Your task to perform on an android device: delete location history Image 0: 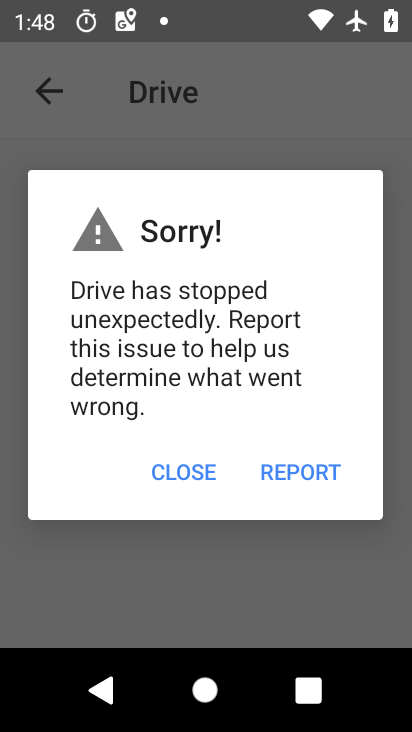
Step 0: press home button
Your task to perform on an android device: delete location history Image 1: 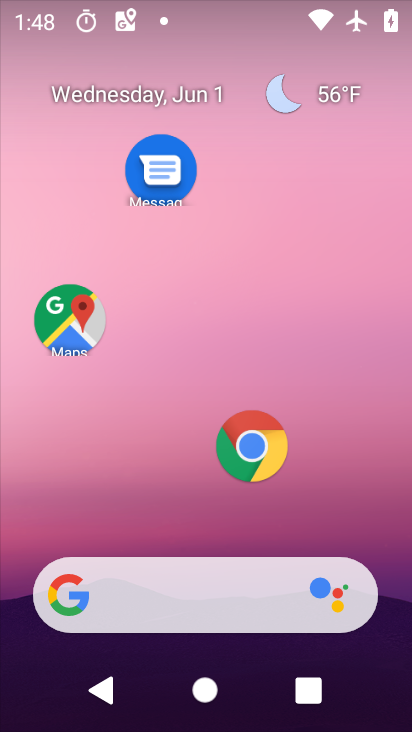
Step 1: drag from (197, 528) to (255, 133)
Your task to perform on an android device: delete location history Image 2: 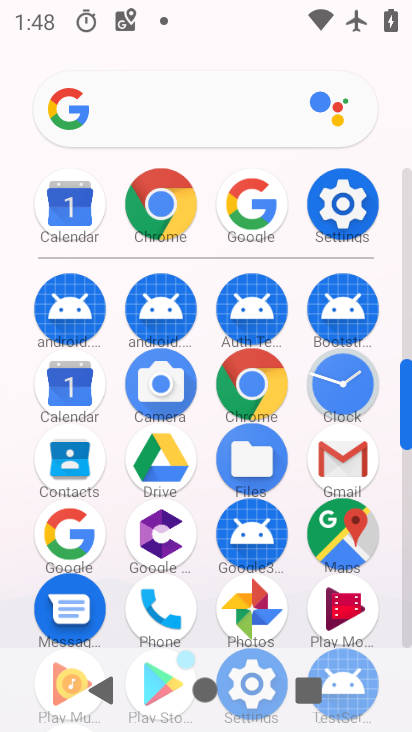
Step 2: drag from (203, 279) to (221, 86)
Your task to perform on an android device: delete location history Image 3: 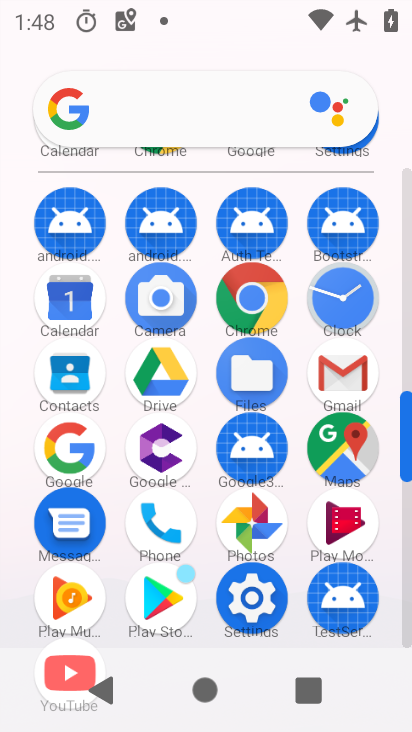
Step 3: click (252, 609)
Your task to perform on an android device: delete location history Image 4: 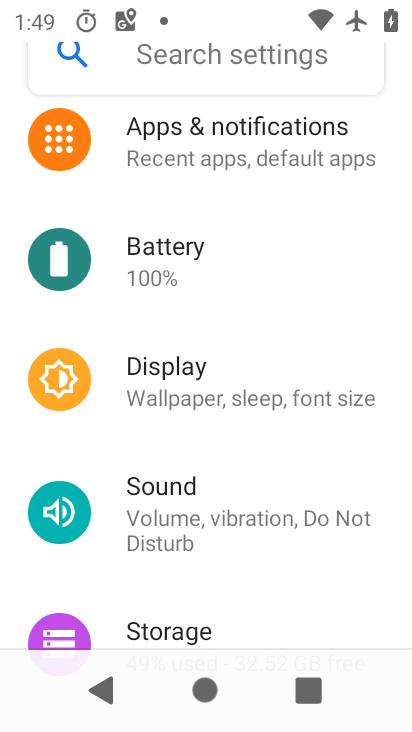
Step 4: drag from (163, 583) to (167, 240)
Your task to perform on an android device: delete location history Image 5: 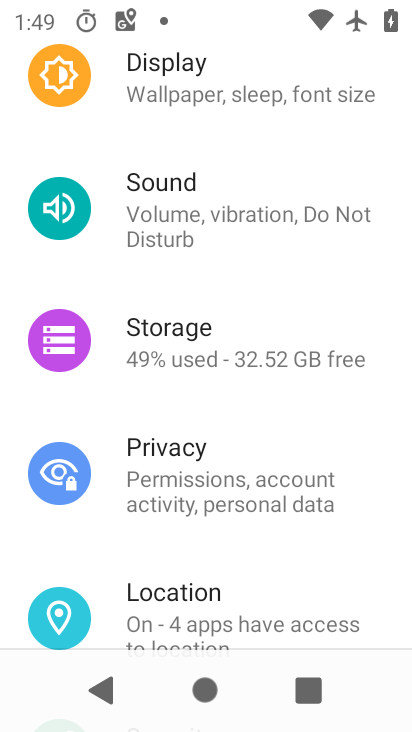
Step 5: click (136, 601)
Your task to perform on an android device: delete location history Image 6: 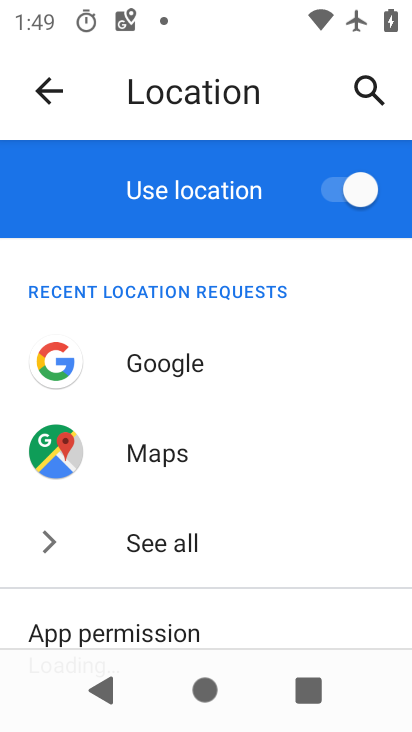
Step 6: drag from (183, 489) to (173, 217)
Your task to perform on an android device: delete location history Image 7: 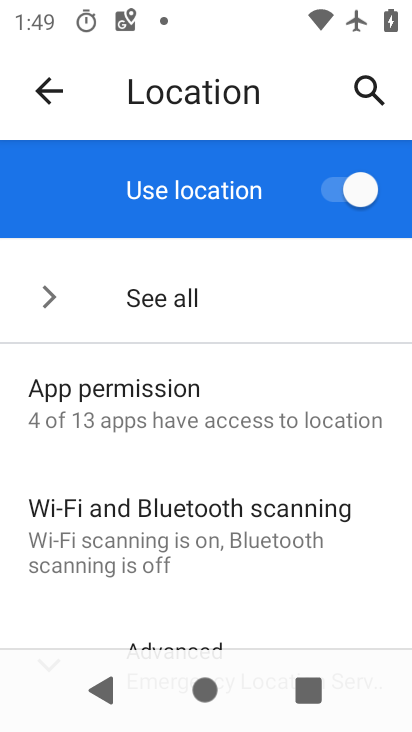
Step 7: drag from (167, 525) to (165, 368)
Your task to perform on an android device: delete location history Image 8: 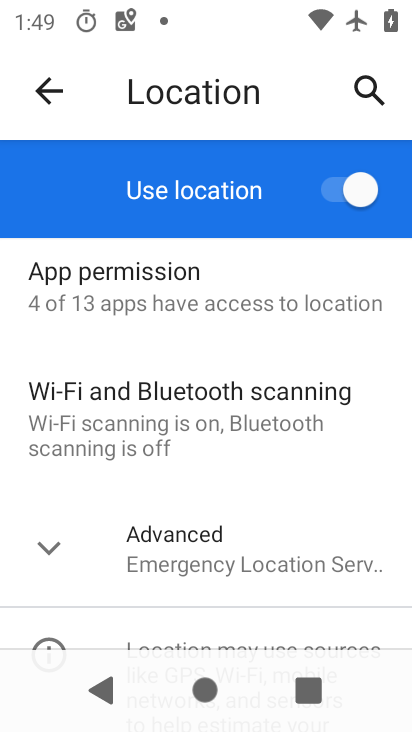
Step 8: drag from (129, 574) to (169, 342)
Your task to perform on an android device: delete location history Image 9: 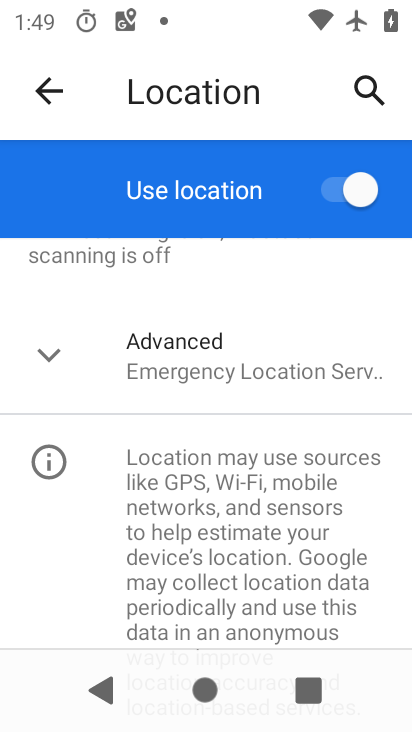
Step 9: click (155, 369)
Your task to perform on an android device: delete location history Image 10: 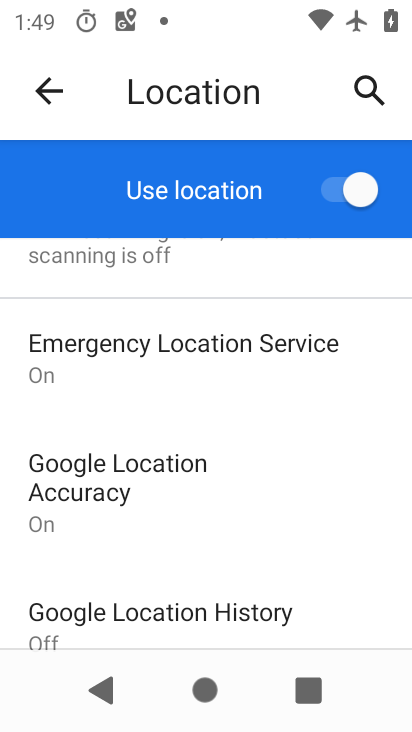
Step 10: drag from (213, 542) to (216, 375)
Your task to perform on an android device: delete location history Image 11: 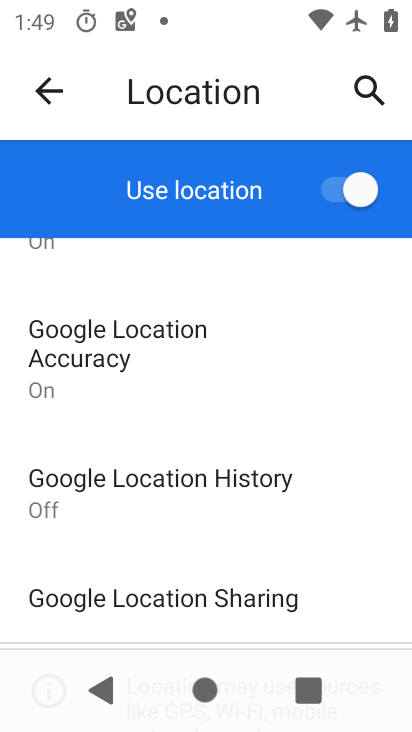
Step 11: click (143, 486)
Your task to perform on an android device: delete location history Image 12: 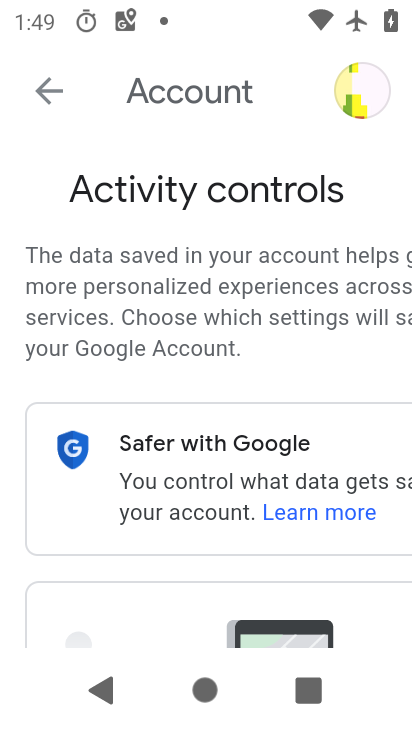
Step 12: drag from (217, 514) to (210, 162)
Your task to perform on an android device: delete location history Image 13: 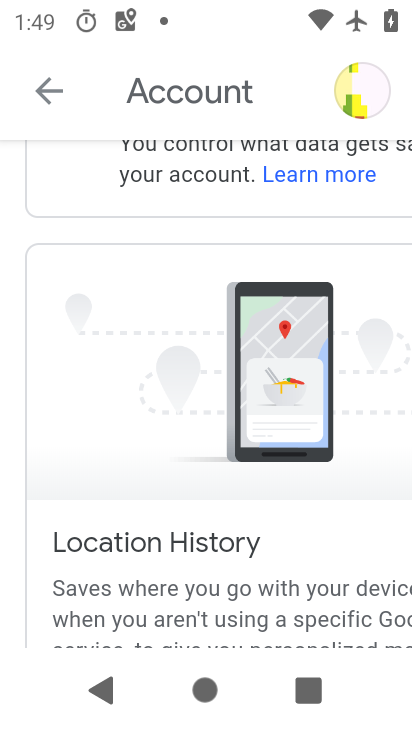
Step 13: drag from (186, 522) to (179, 200)
Your task to perform on an android device: delete location history Image 14: 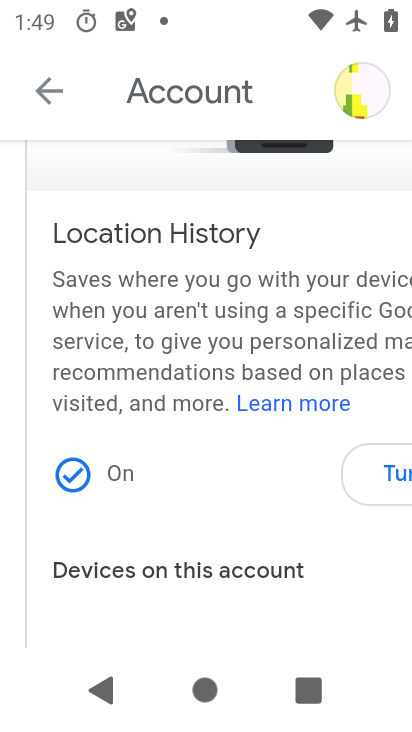
Step 14: drag from (241, 498) to (247, 167)
Your task to perform on an android device: delete location history Image 15: 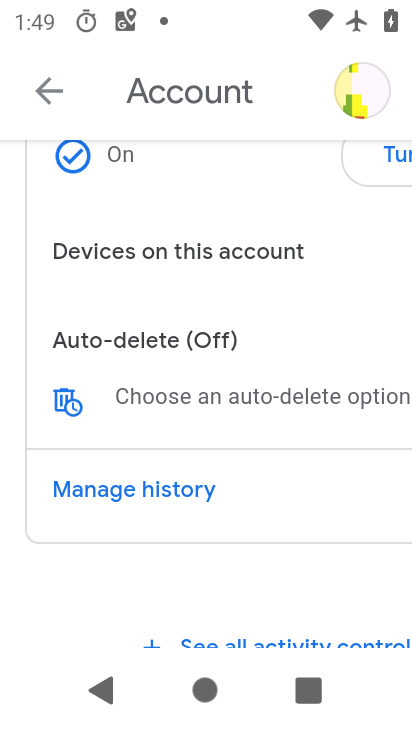
Step 15: click (244, 421)
Your task to perform on an android device: delete location history Image 16: 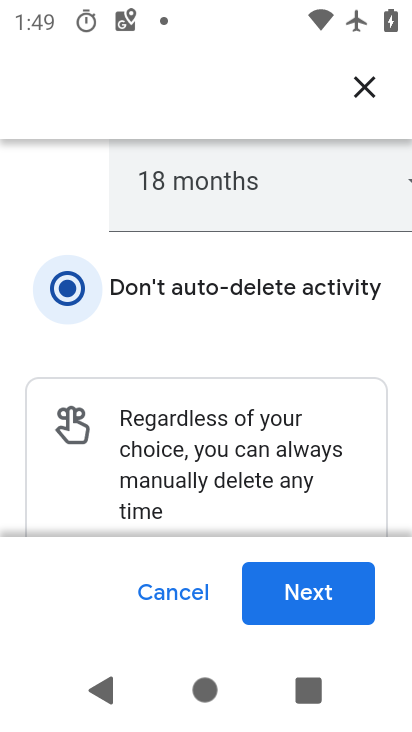
Step 16: click (308, 590)
Your task to perform on an android device: delete location history Image 17: 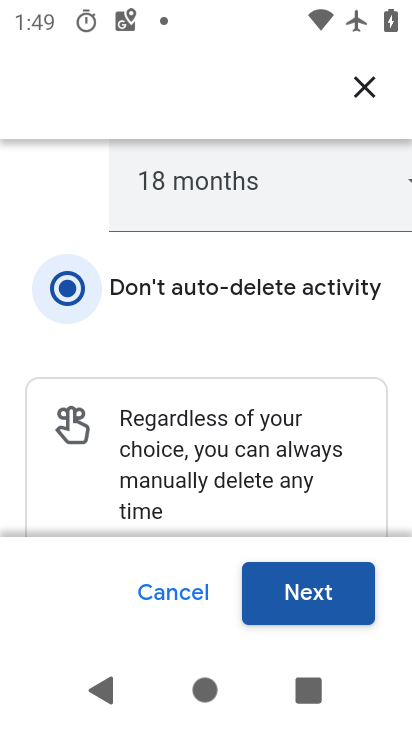
Step 17: click (311, 590)
Your task to perform on an android device: delete location history Image 18: 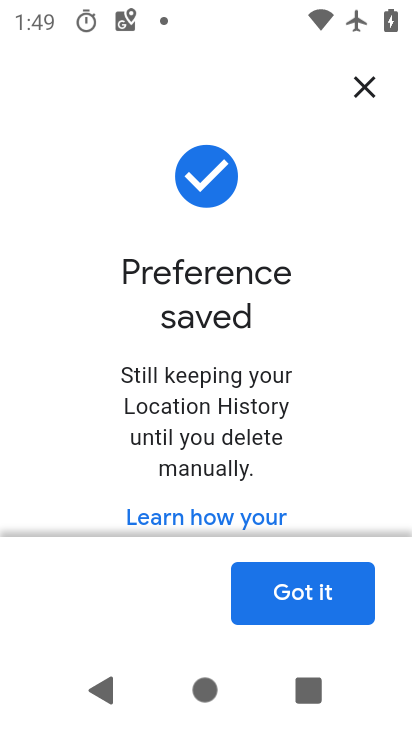
Step 18: click (303, 596)
Your task to perform on an android device: delete location history Image 19: 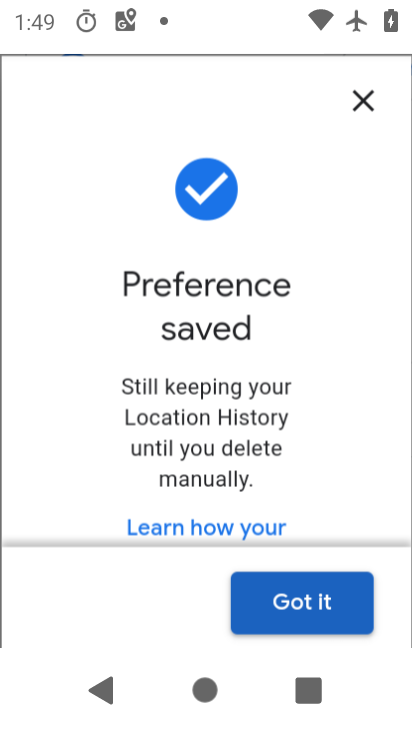
Step 19: task complete